Your task to perform on an android device: Go to Yahoo.com Image 0: 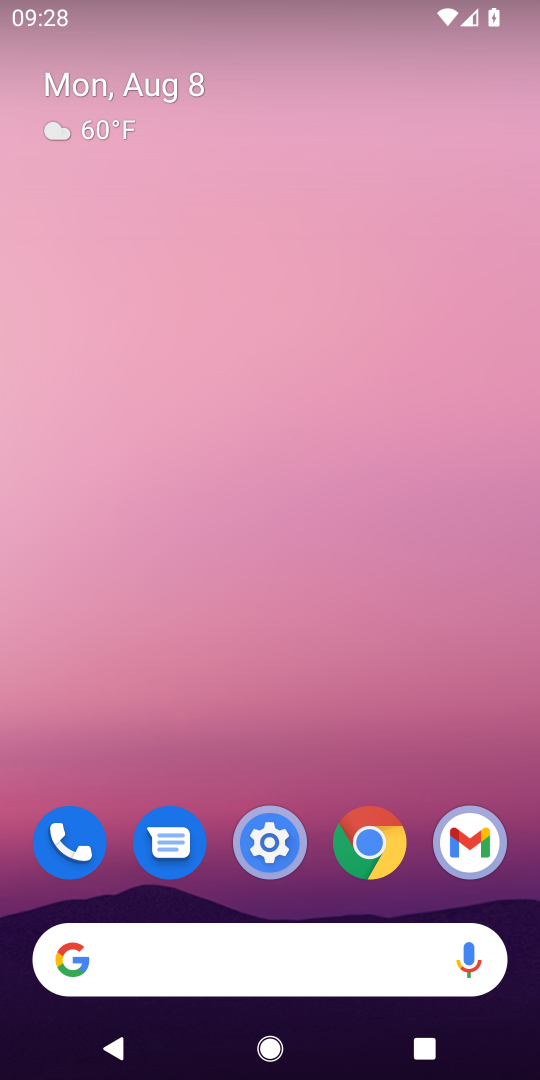
Step 0: click (383, 843)
Your task to perform on an android device: Go to Yahoo.com Image 1: 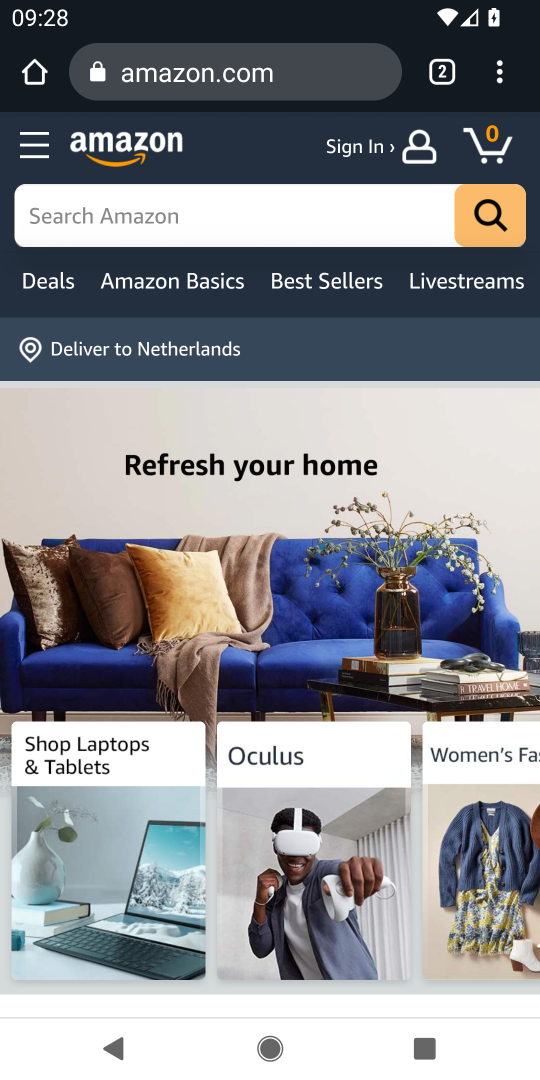
Step 1: click (291, 90)
Your task to perform on an android device: Go to Yahoo.com Image 2: 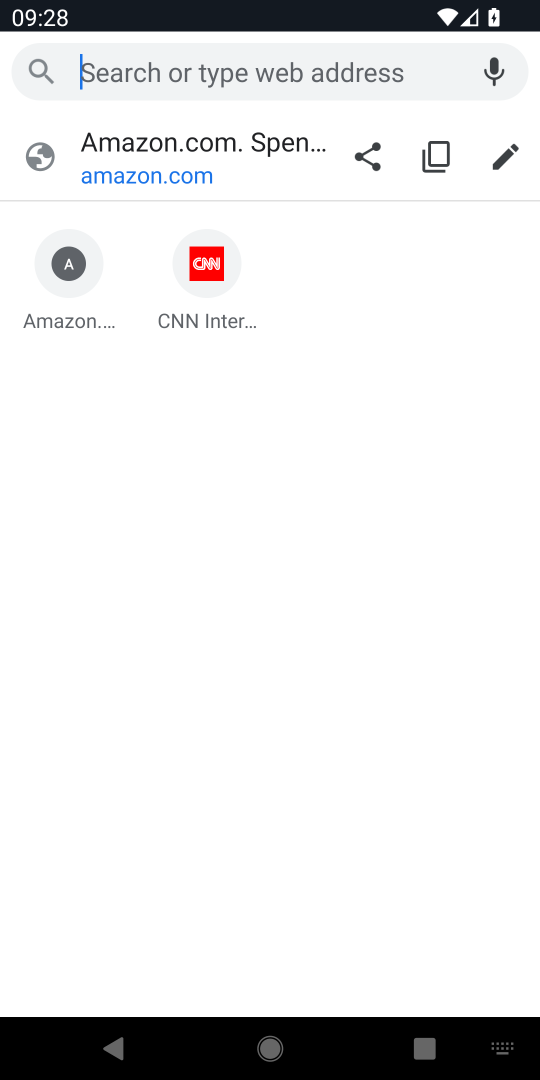
Step 2: type "yahoo.com"
Your task to perform on an android device: Go to Yahoo.com Image 3: 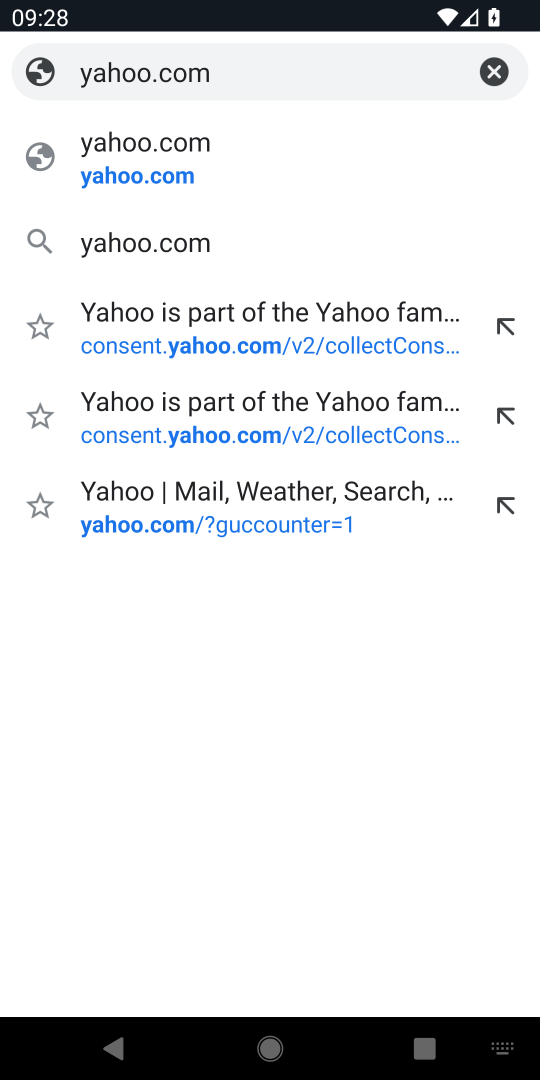
Step 3: click (139, 153)
Your task to perform on an android device: Go to Yahoo.com Image 4: 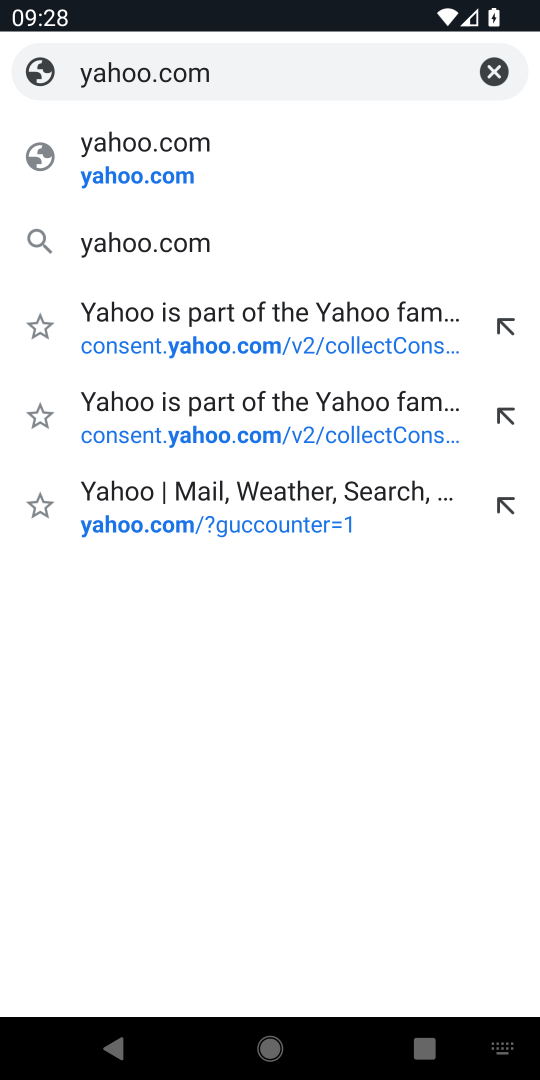
Step 4: click (200, 181)
Your task to perform on an android device: Go to Yahoo.com Image 5: 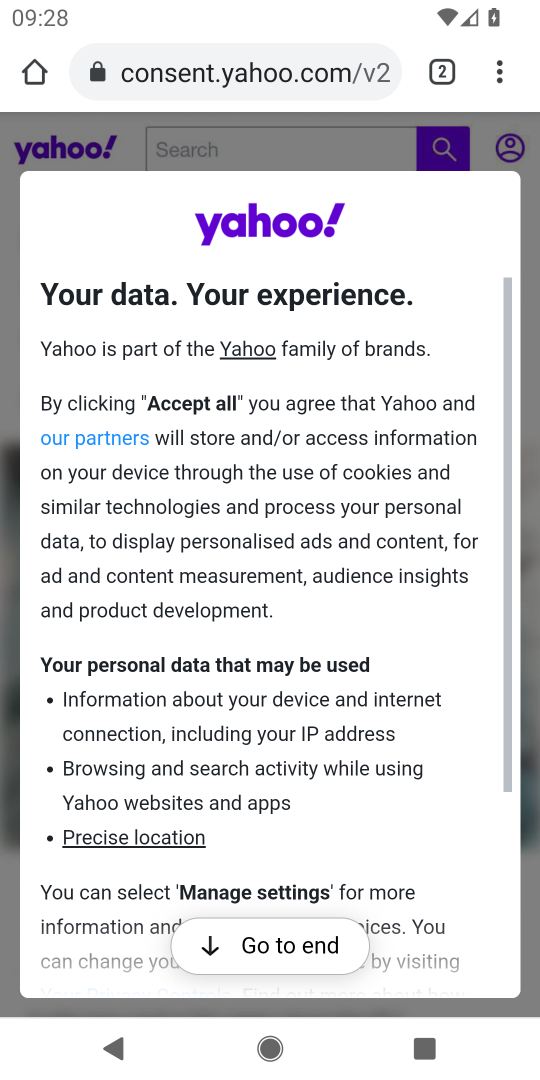
Step 5: task complete